Your task to perform on an android device: Set the phone to "Do not disturb". Image 0: 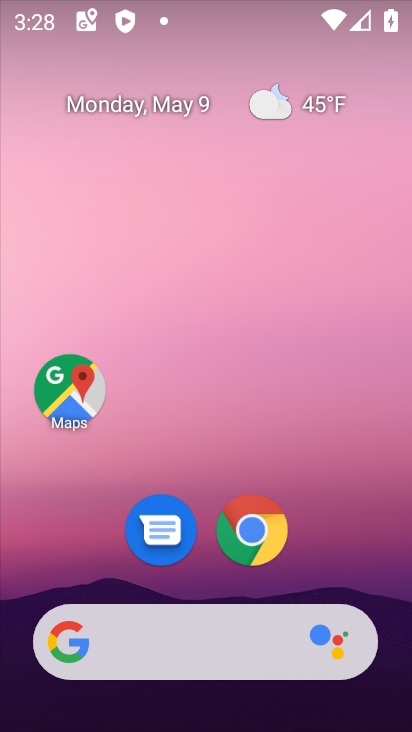
Step 0: drag from (360, 633) to (162, 62)
Your task to perform on an android device: Set the phone to "Do not disturb". Image 1: 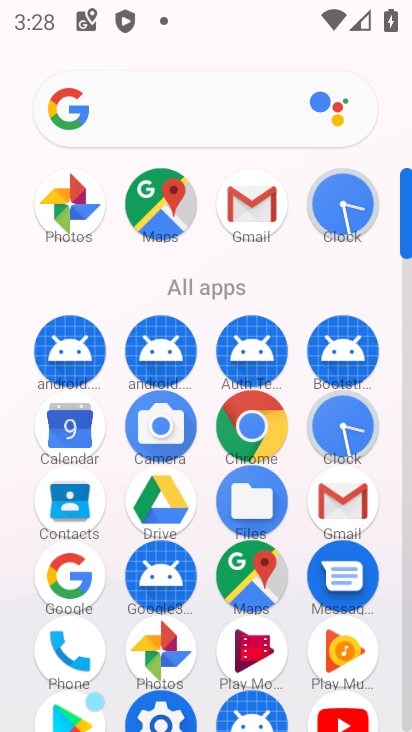
Step 1: drag from (206, 555) to (217, 138)
Your task to perform on an android device: Set the phone to "Do not disturb". Image 2: 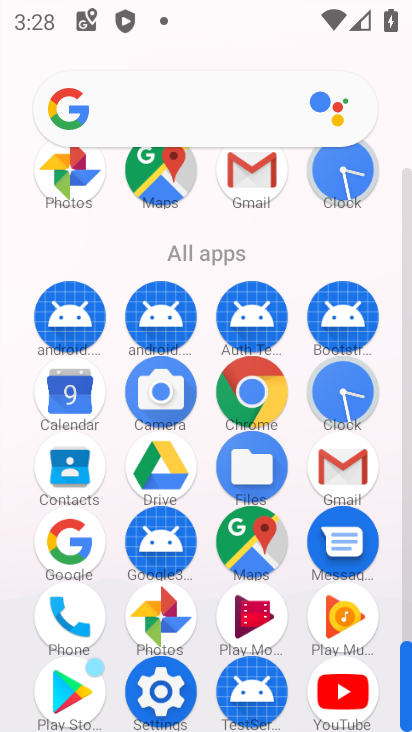
Step 2: drag from (221, 636) to (180, 149)
Your task to perform on an android device: Set the phone to "Do not disturb". Image 3: 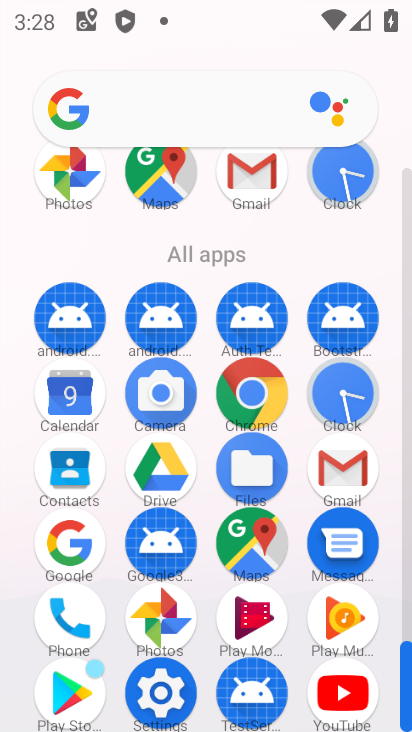
Step 3: click (150, 684)
Your task to perform on an android device: Set the phone to "Do not disturb". Image 4: 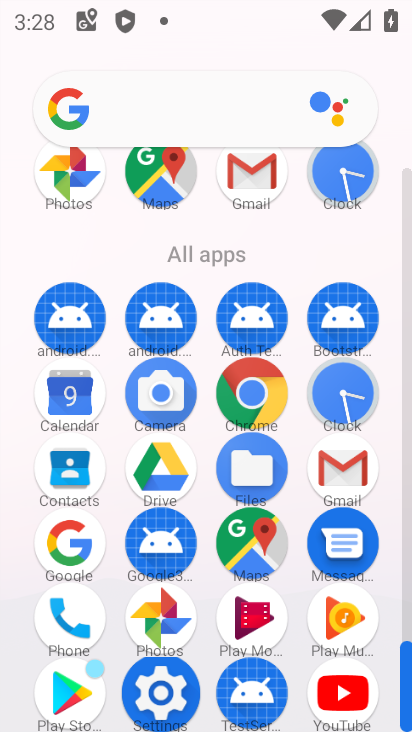
Step 4: click (150, 684)
Your task to perform on an android device: Set the phone to "Do not disturb". Image 5: 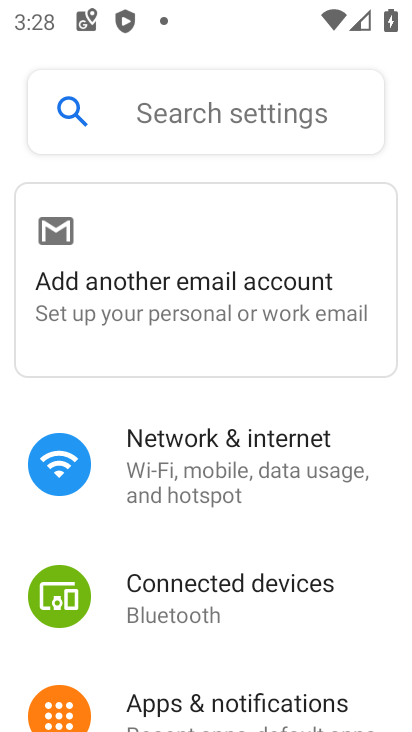
Step 5: drag from (238, 634) to (241, 223)
Your task to perform on an android device: Set the phone to "Do not disturb". Image 6: 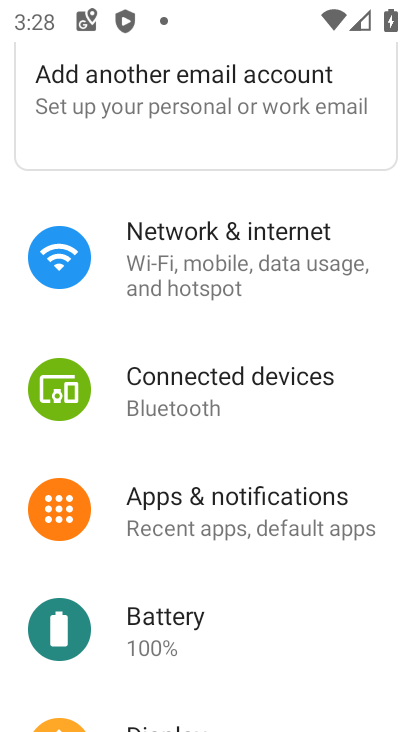
Step 6: drag from (293, 502) to (245, 132)
Your task to perform on an android device: Set the phone to "Do not disturb". Image 7: 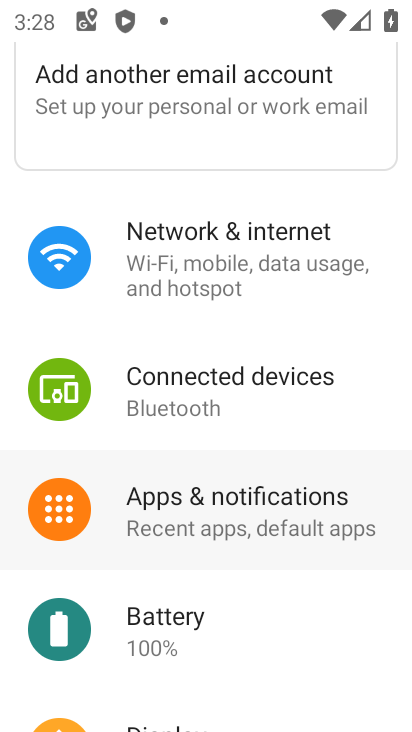
Step 7: drag from (279, 416) to (247, 143)
Your task to perform on an android device: Set the phone to "Do not disturb". Image 8: 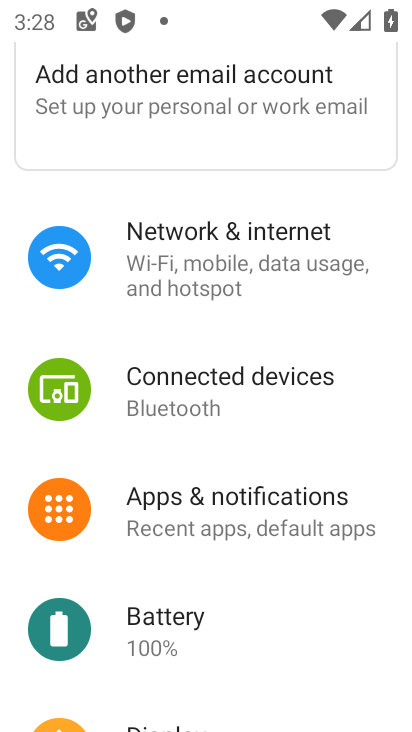
Step 8: drag from (219, 605) to (194, 209)
Your task to perform on an android device: Set the phone to "Do not disturb". Image 9: 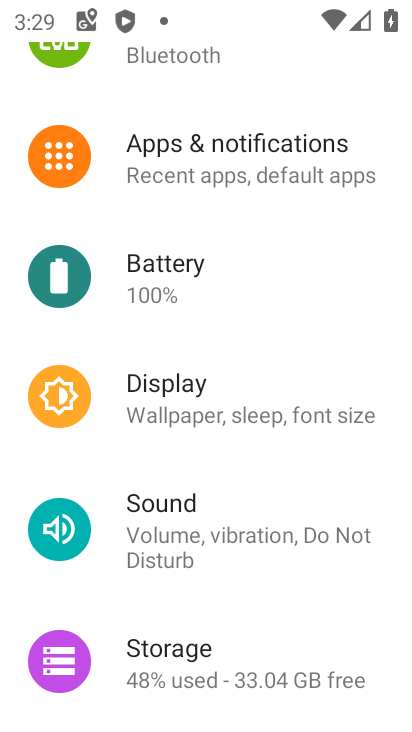
Step 9: click (171, 537)
Your task to perform on an android device: Set the phone to "Do not disturb". Image 10: 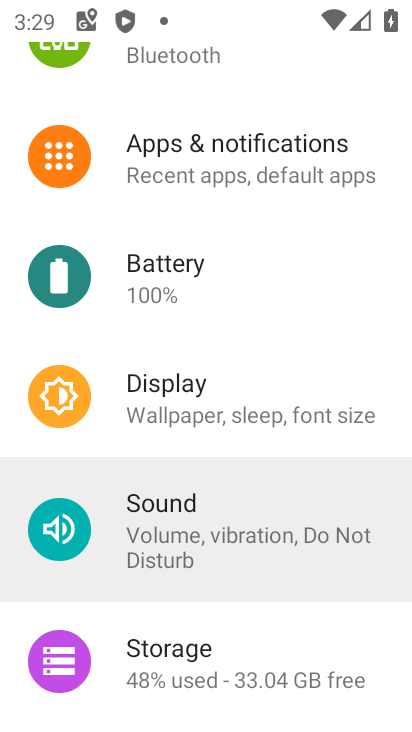
Step 10: click (169, 537)
Your task to perform on an android device: Set the phone to "Do not disturb". Image 11: 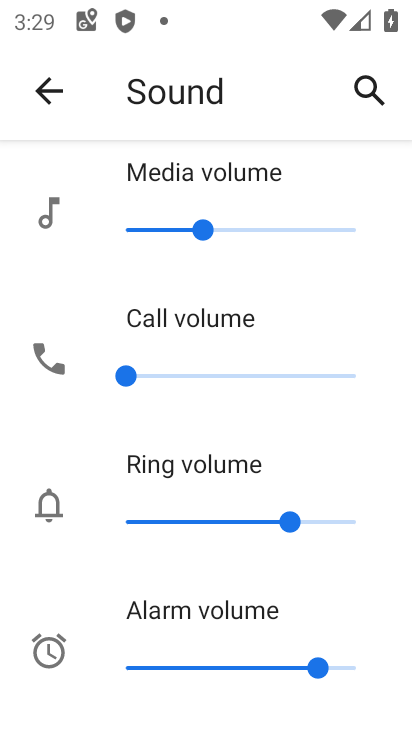
Step 11: drag from (209, 383) to (151, 13)
Your task to perform on an android device: Set the phone to "Do not disturb". Image 12: 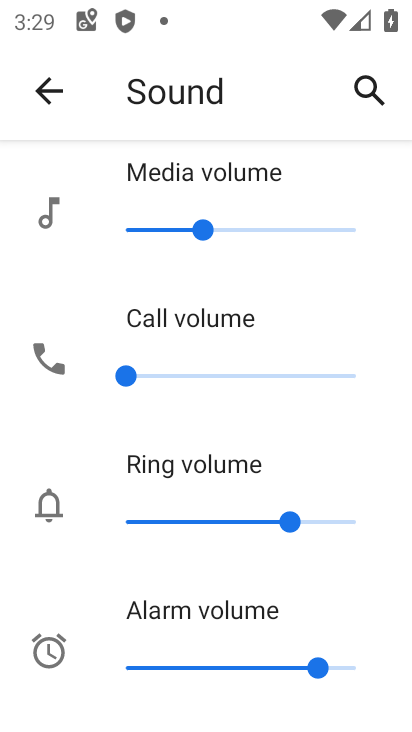
Step 12: drag from (112, 493) to (70, 44)
Your task to perform on an android device: Set the phone to "Do not disturb". Image 13: 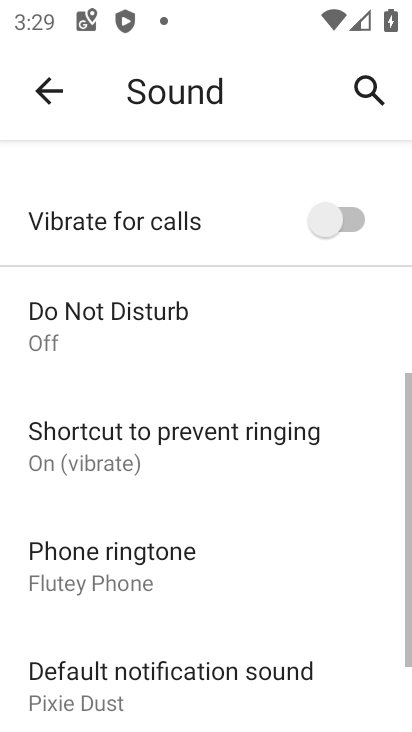
Step 13: drag from (189, 459) to (218, 46)
Your task to perform on an android device: Set the phone to "Do not disturb". Image 14: 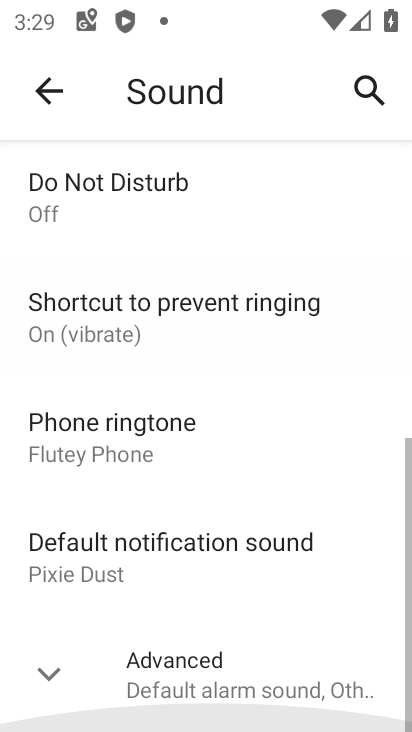
Step 14: drag from (205, 539) to (230, 175)
Your task to perform on an android device: Set the phone to "Do not disturb". Image 15: 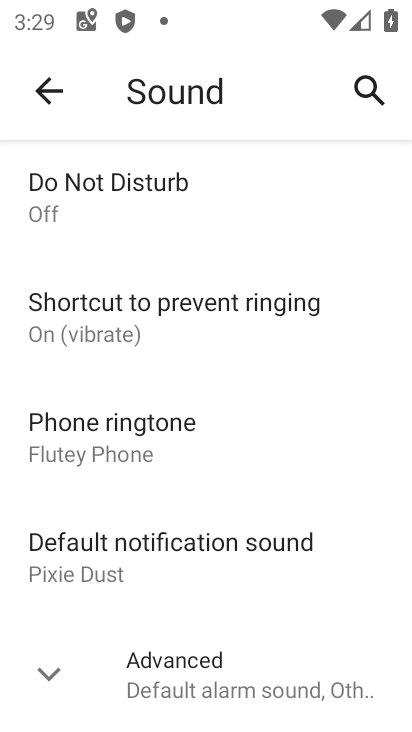
Step 15: click (87, 173)
Your task to perform on an android device: Set the phone to "Do not disturb". Image 16: 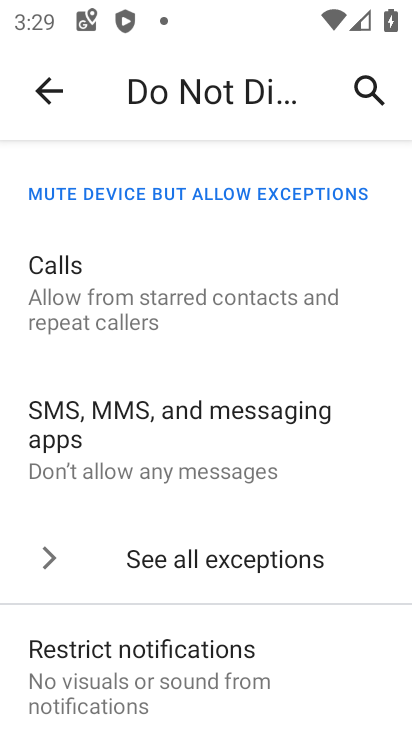
Step 16: drag from (151, 663) to (115, 72)
Your task to perform on an android device: Set the phone to "Do not disturb". Image 17: 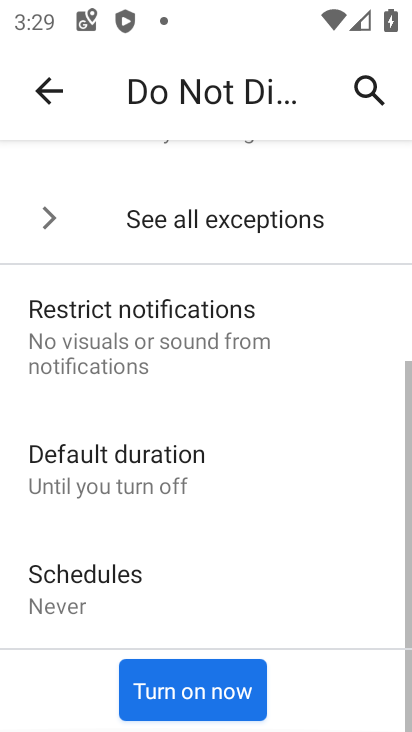
Step 17: drag from (284, 512) to (278, 102)
Your task to perform on an android device: Set the phone to "Do not disturb". Image 18: 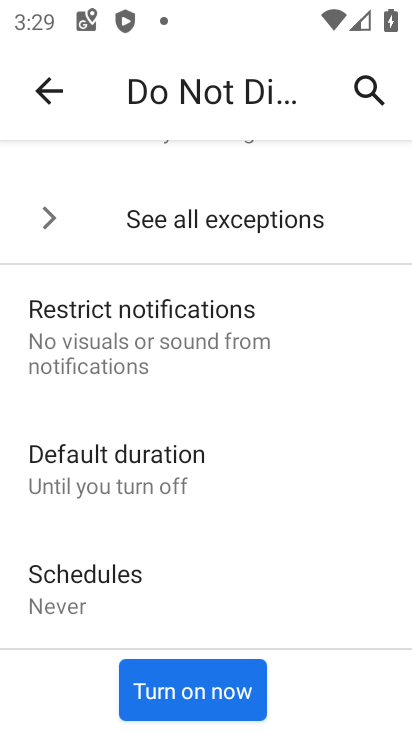
Step 18: click (194, 688)
Your task to perform on an android device: Set the phone to "Do not disturb". Image 19: 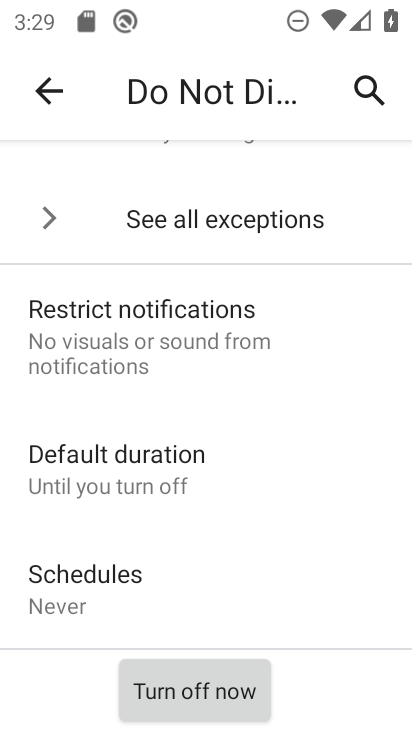
Step 19: task complete